Your task to perform on an android device: change notifications settings Image 0: 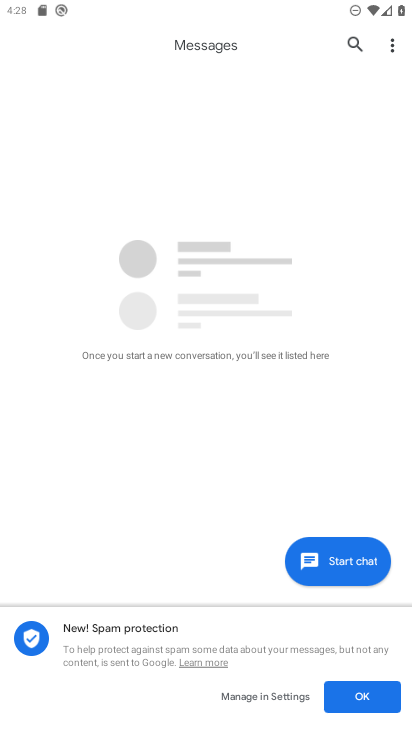
Step 0: click (364, 691)
Your task to perform on an android device: change notifications settings Image 1: 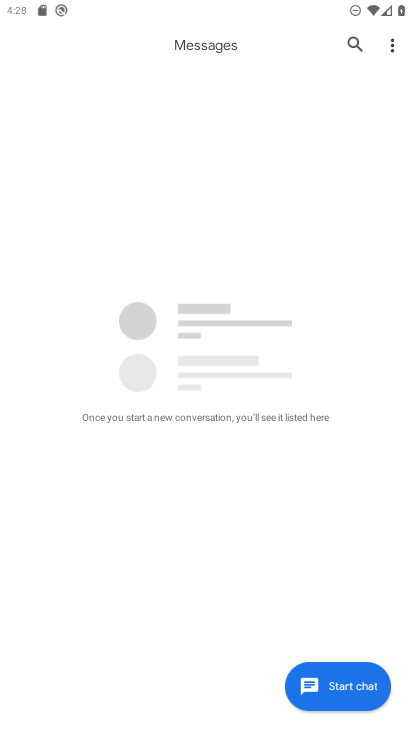
Step 1: press home button
Your task to perform on an android device: change notifications settings Image 2: 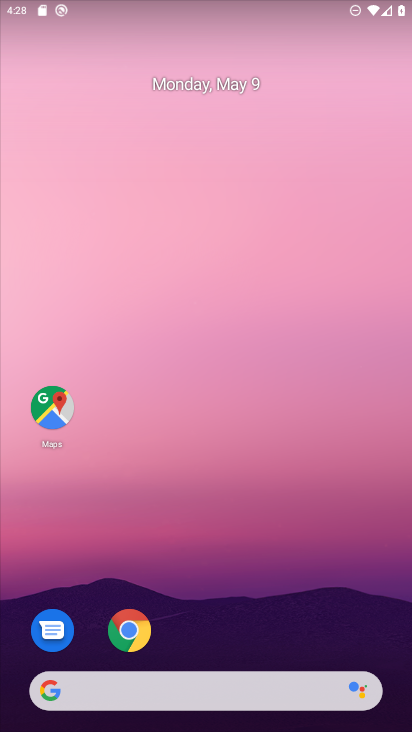
Step 2: drag from (305, 511) to (177, 151)
Your task to perform on an android device: change notifications settings Image 3: 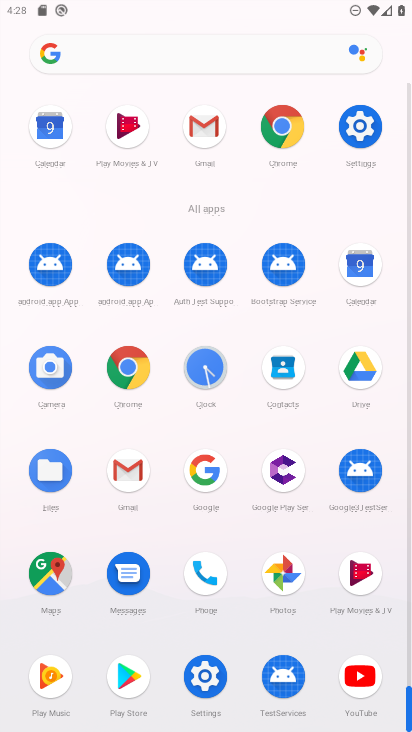
Step 3: click (358, 133)
Your task to perform on an android device: change notifications settings Image 4: 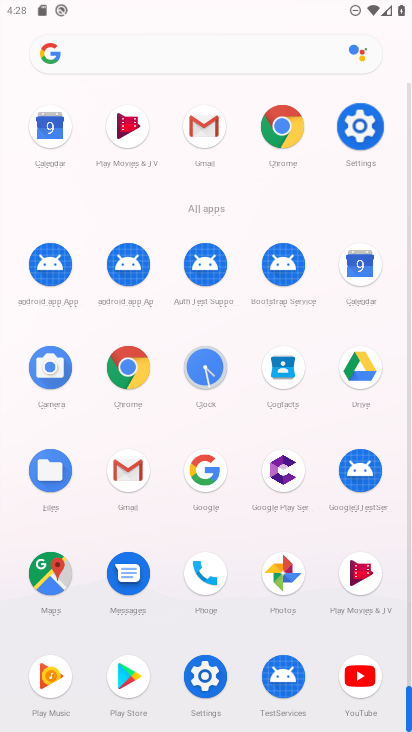
Step 4: click (358, 133)
Your task to perform on an android device: change notifications settings Image 5: 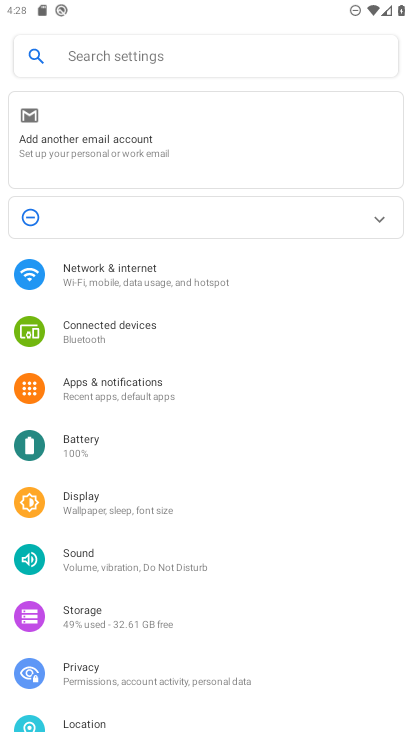
Step 5: click (110, 384)
Your task to perform on an android device: change notifications settings Image 6: 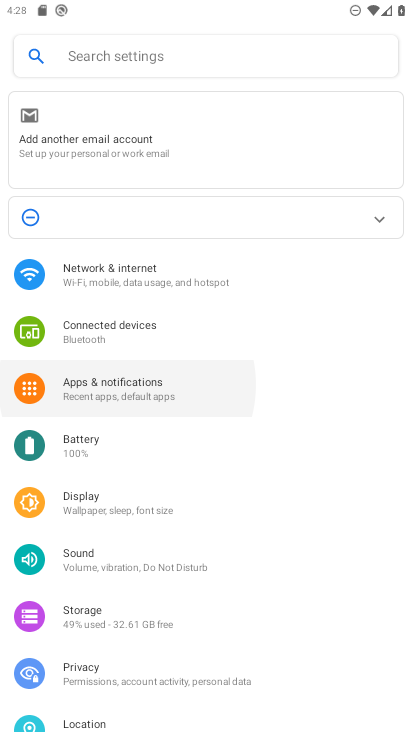
Step 6: click (110, 384)
Your task to perform on an android device: change notifications settings Image 7: 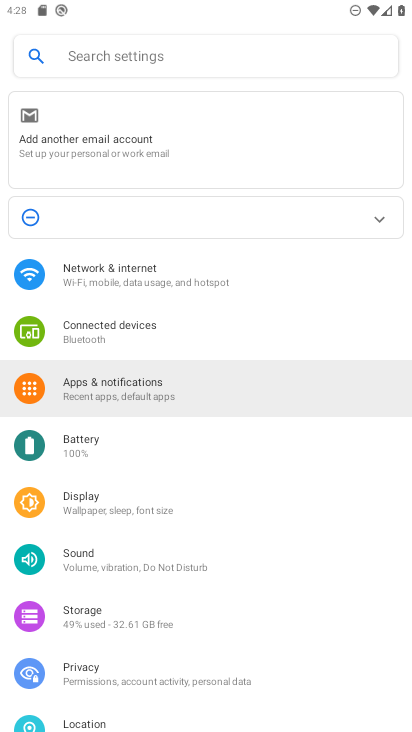
Step 7: click (110, 384)
Your task to perform on an android device: change notifications settings Image 8: 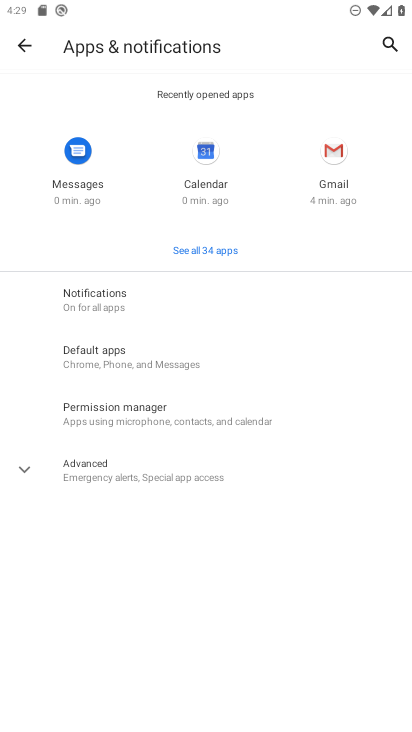
Step 8: click (103, 305)
Your task to perform on an android device: change notifications settings Image 9: 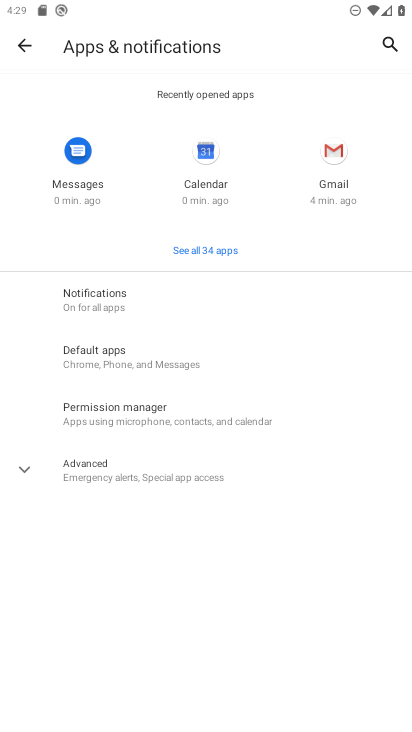
Step 9: click (99, 297)
Your task to perform on an android device: change notifications settings Image 10: 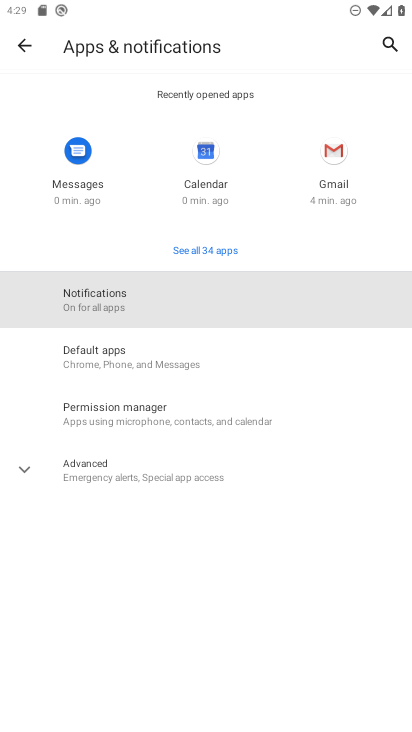
Step 10: click (99, 297)
Your task to perform on an android device: change notifications settings Image 11: 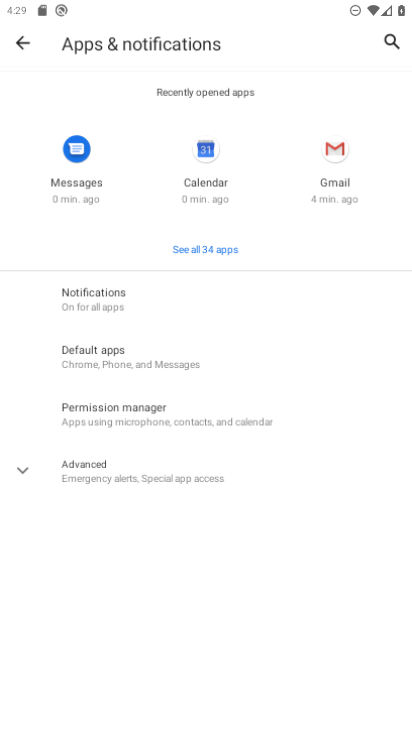
Step 11: click (99, 297)
Your task to perform on an android device: change notifications settings Image 12: 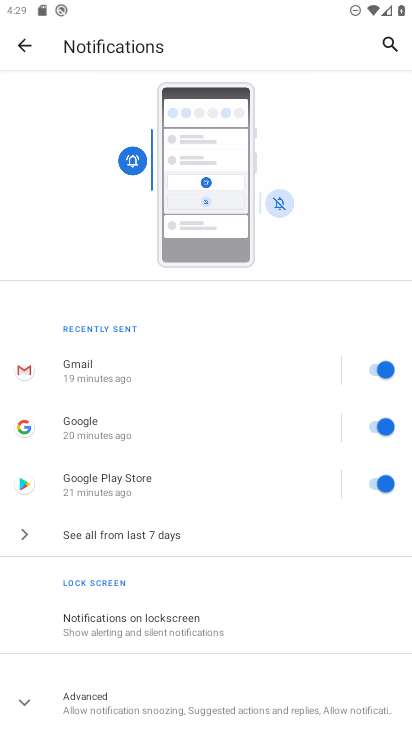
Step 12: drag from (171, 488) to (103, 126)
Your task to perform on an android device: change notifications settings Image 13: 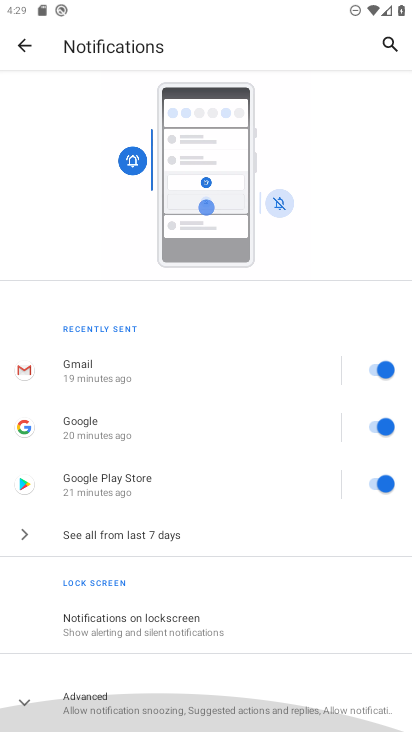
Step 13: drag from (160, 522) to (87, 160)
Your task to perform on an android device: change notifications settings Image 14: 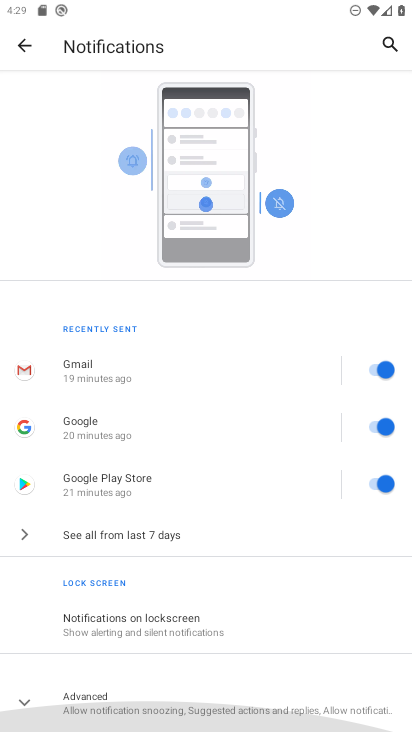
Step 14: drag from (98, 593) to (87, 130)
Your task to perform on an android device: change notifications settings Image 15: 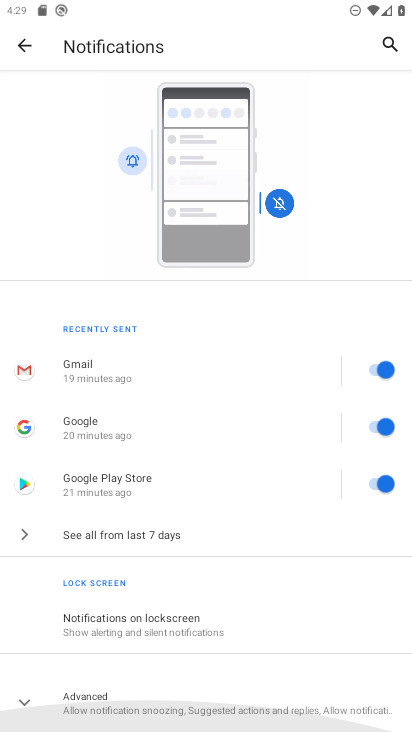
Step 15: drag from (222, 621) to (142, 240)
Your task to perform on an android device: change notifications settings Image 16: 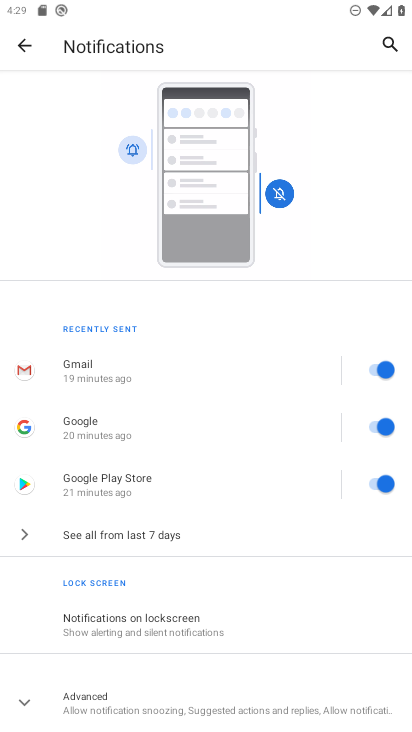
Step 16: click (379, 366)
Your task to perform on an android device: change notifications settings Image 17: 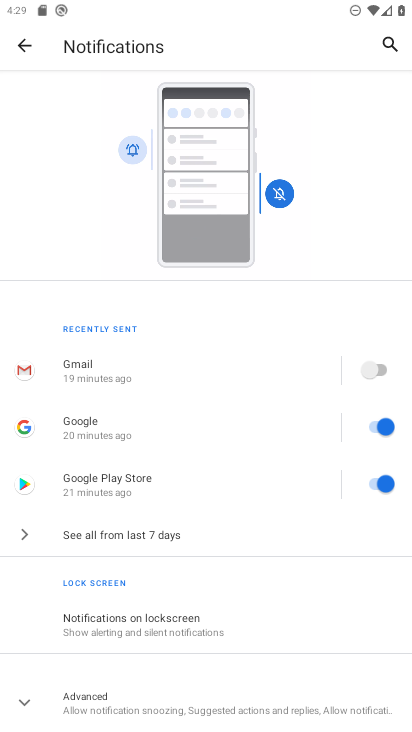
Step 17: click (380, 482)
Your task to perform on an android device: change notifications settings Image 18: 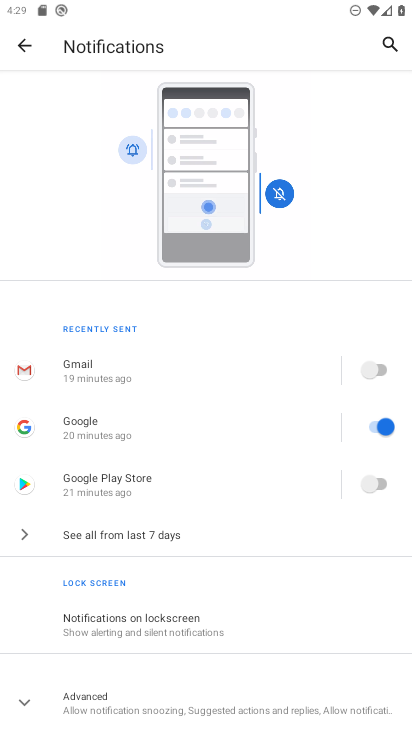
Step 18: click (374, 368)
Your task to perform on an android device: change notifications settings Image 19: 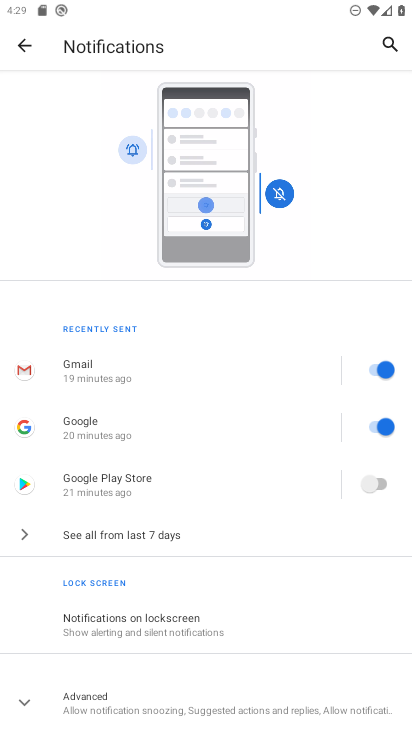
Step 19: click (378, 477)
Your task to perform on an android device: change notifications settings Image 20: 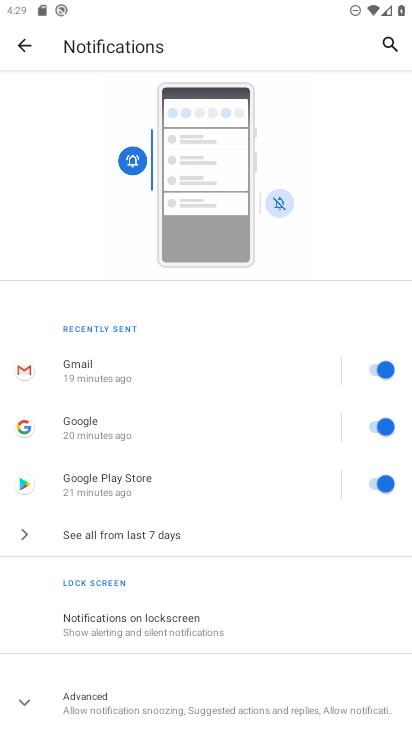
Step 20: drag from (294, 601) to (248, 270)
Your task to perform on an android device: change notifications settings Image 21: 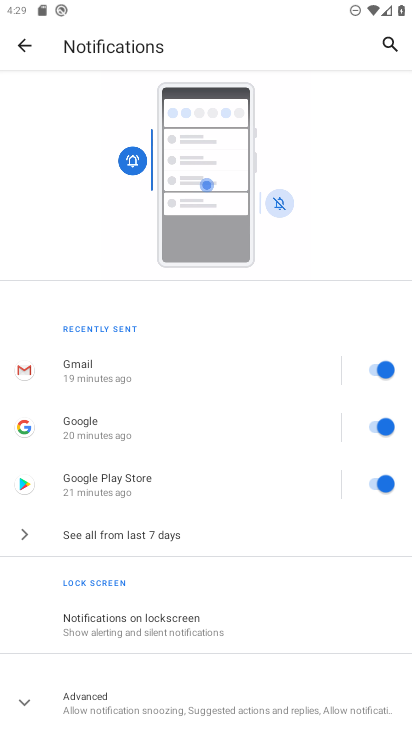
Step 21: drag from (193, 447) to (193, 407)
Your task to perform on an android device: change notifications settings Image 22: 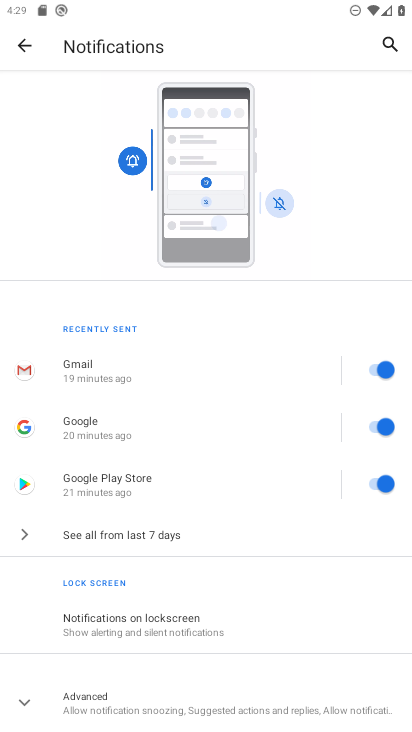
Step 22: click (144, 705)
Your task to perform on an android device: change notifications settings Image 23: 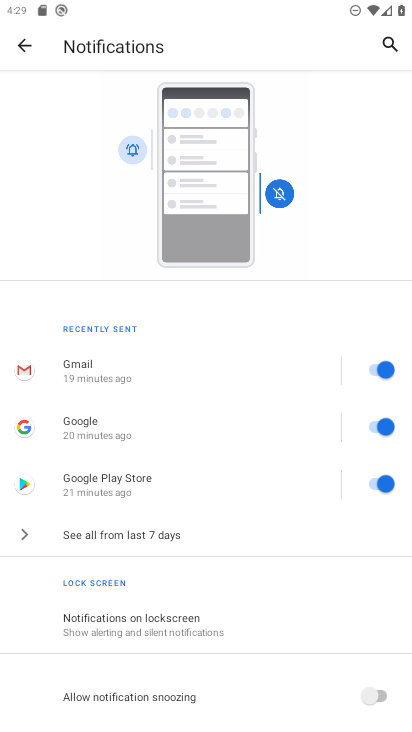
Step 23: click (374, 686)
Your task to perform on an android device: change notifications settings Image 24: 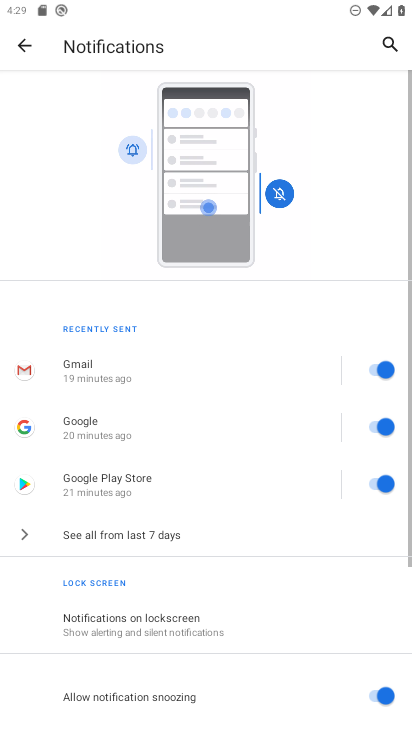
Step 24: drag from (259, 619) to (230, 247)
Your task to perform on an android device: change notifications settings Image 25: 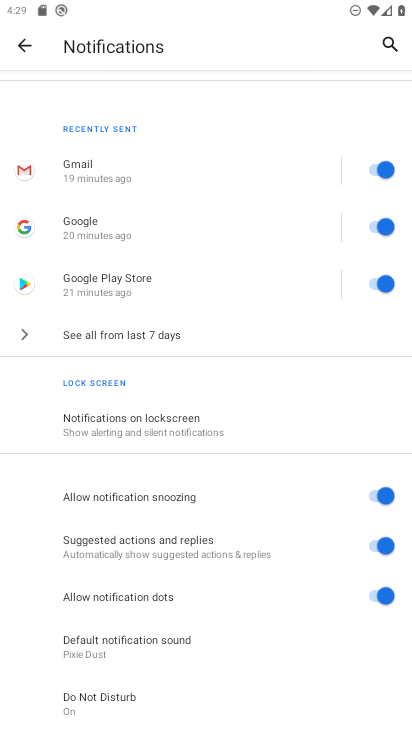
Step 25: click (376, 601)
Your task to perform on an android device: change notifications settings Image 26: 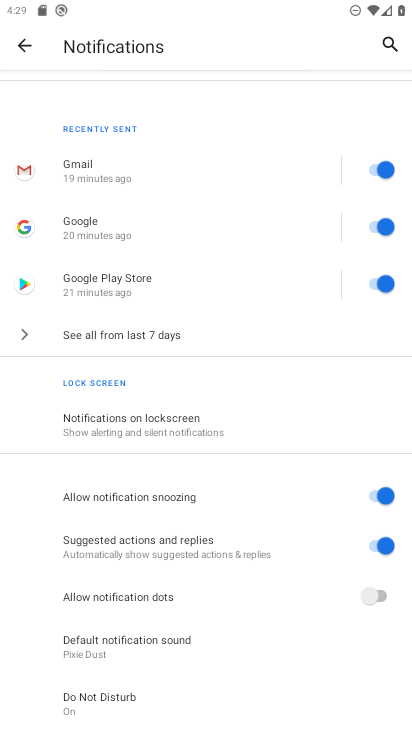
Step 26: task complete